Your task to perform on an android device: uninstall "File Manager" Image 0: 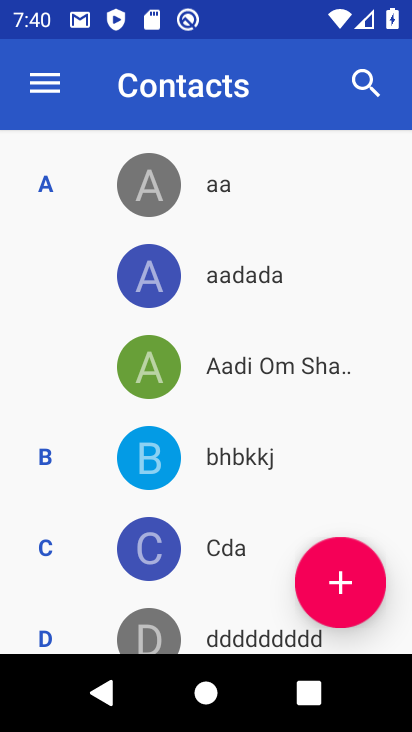
Step 0: press home button
Your task to perform on an android device: uninstall "File Manager" Image 1: 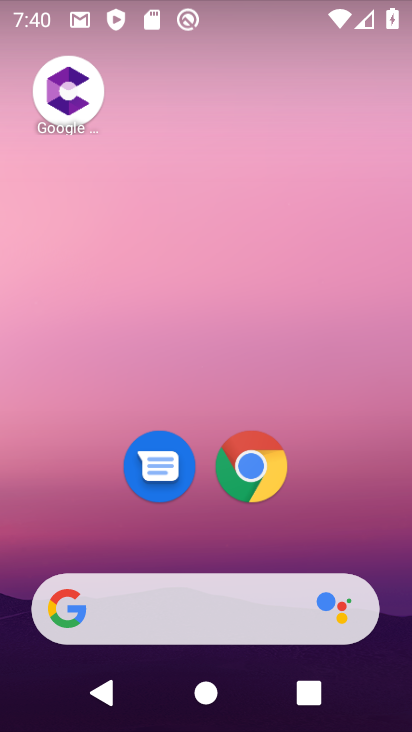
Step 1: drag from (190, 548) to (184, 23)
Your task to perform on an android device: uninstall "File Manager" Image 2: 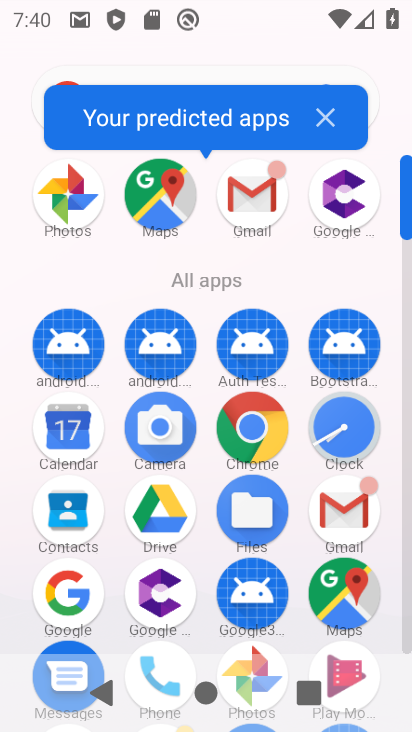
Step 2: drag from (180, 589) to (182, 387)
Your task to perform on an android device: uninstall "File Manager" Image 3: 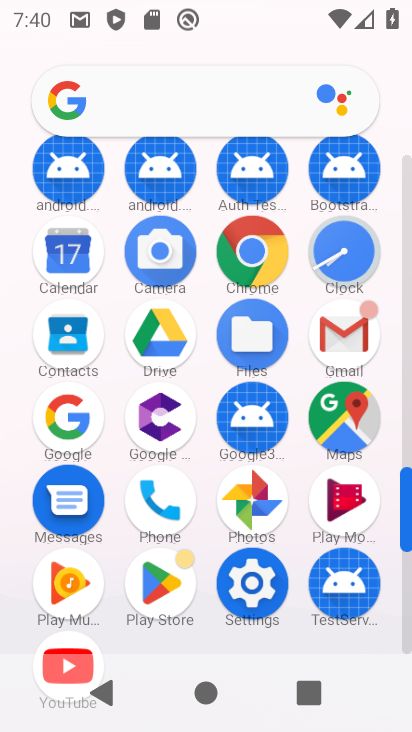
Step 3: click (160, 593)
Your task to perform on an android device: uninstall "File Manager" Image 4: 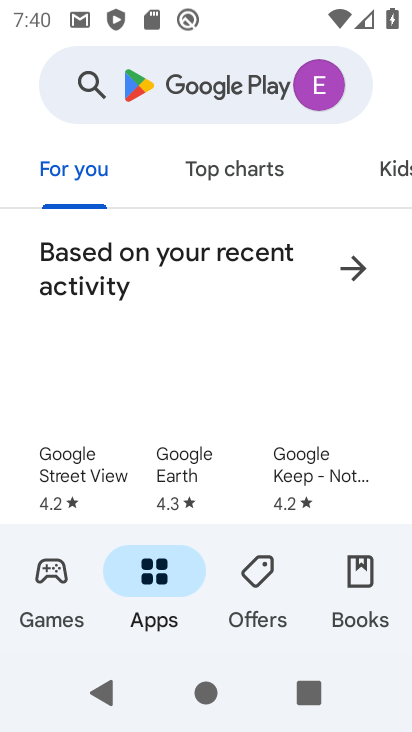
Step 4: click (177, 72)
Your task to perform on an android device: uninstall "File Manager" Image 5: 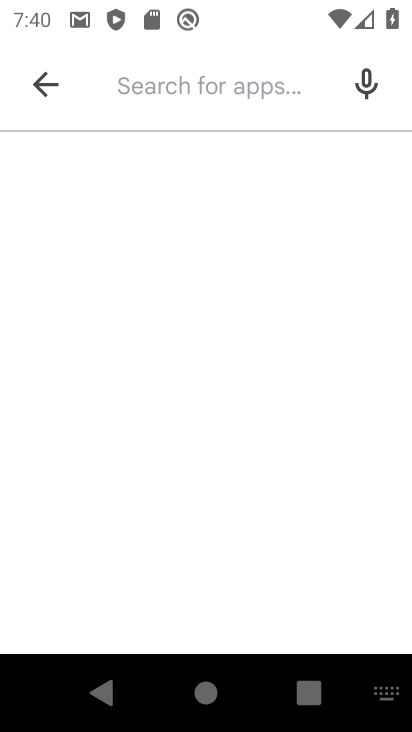
Step 5: type "fliemanager"
Your task to perform on an android device: uninstall "File Manager" Image 6: 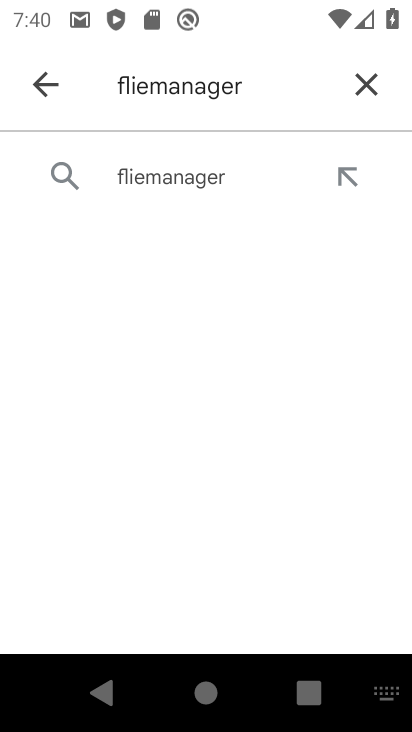
Step 6: click (159, 176)
Your task to perform on an android device: uninstall "File Manager" Image 7: 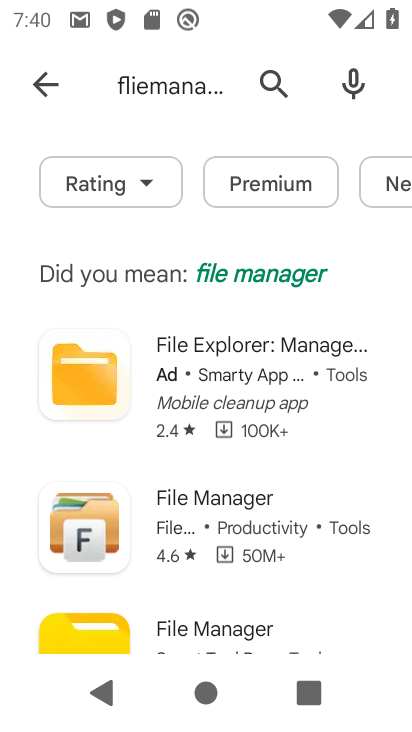
Step 7: click (241, 486)
Your task to perform on an android device: uninstall "File Manager" Image 8: 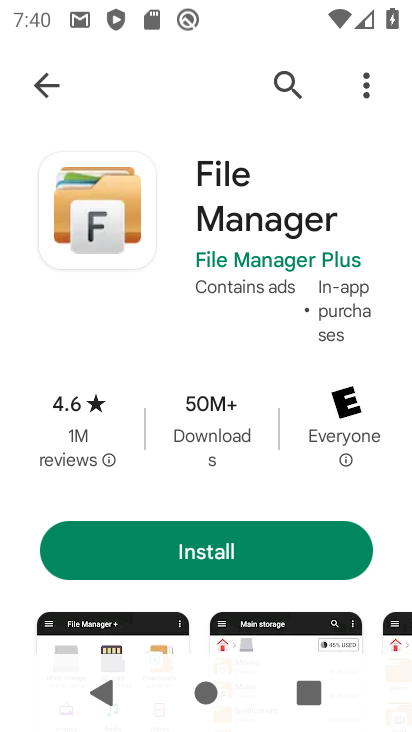
Step 8: task complete